Your task to perform on an android device: Open the phone app and click the voicemail tab. Image 0: 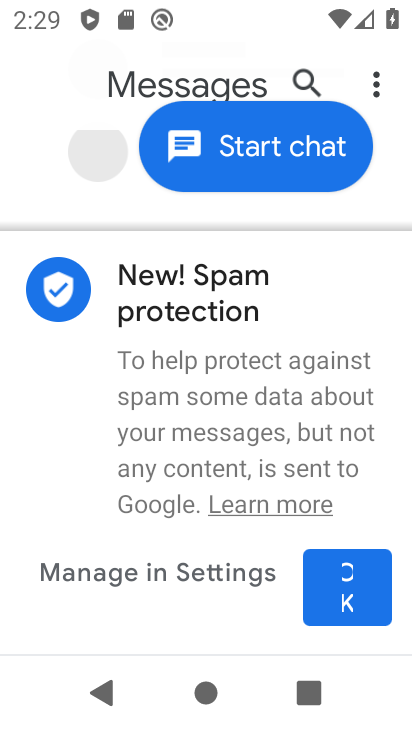
Step 0: press home button
Your task to perform on an android device: Open the phone app and click the voicemail tab. Image 1: 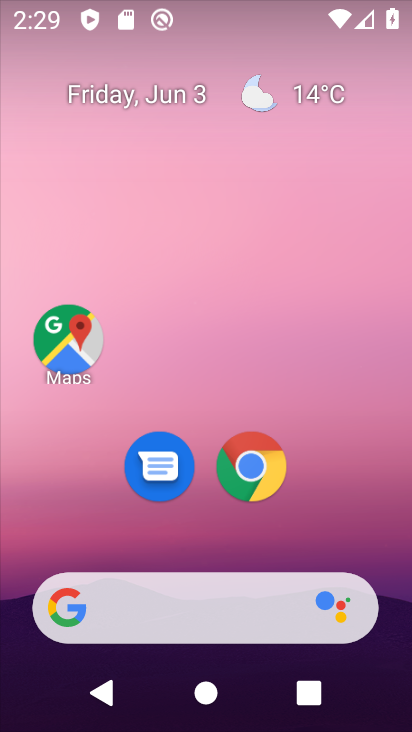
Step 1: drag from (310, 424) to (227, 76)
Your task to perform on an android device: Open the phone app and click the voicemail tab. Image 2: 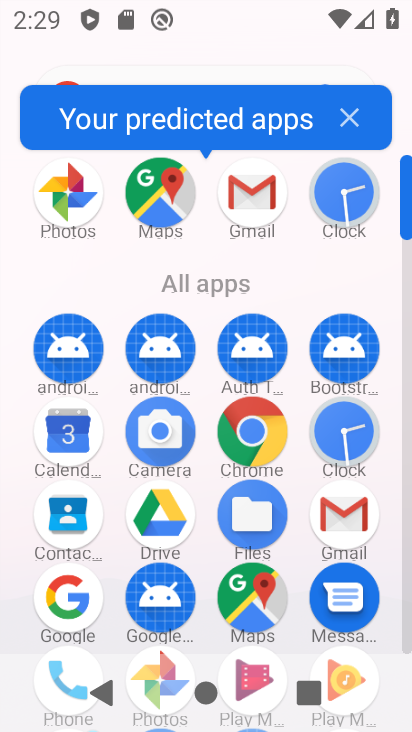
Step 2: drag from (303, 515) to (287, 170)
Your task to perform on an android device: Open the phone app and click the voicemail tab. Image 3: 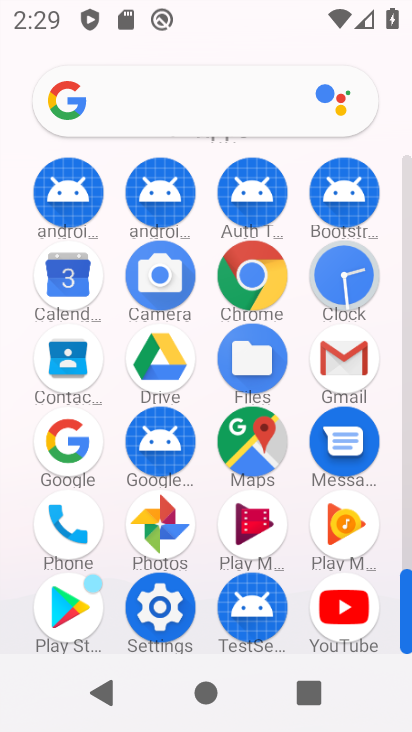
Step 3: click (60, 544)
Your task to perform on an android device: Open the phone app and click the voicemail tab. Image 4: 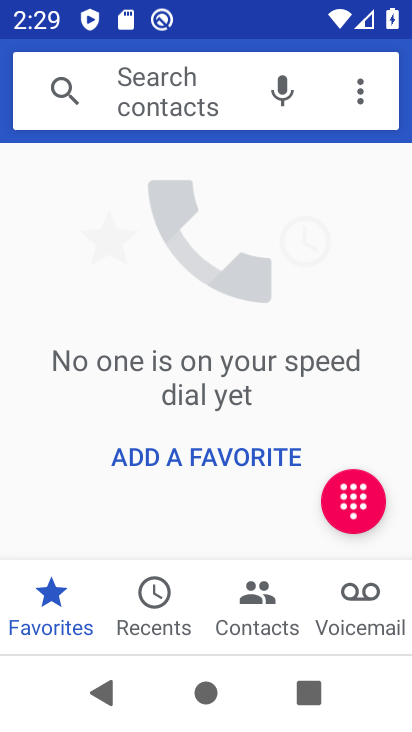
Step 4: click (386, 596)
Your task to perform on an android device: Open the phone app and click the voicemail tab. Image 5: 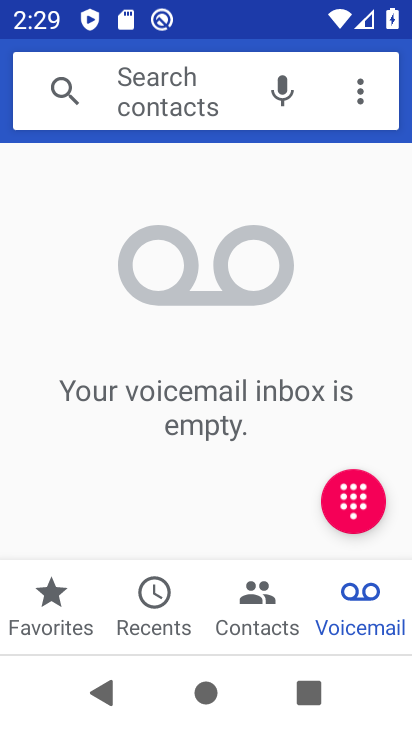
Step 5: task complete